Your task to perform on an android device: change alarm snooze length Image 0: 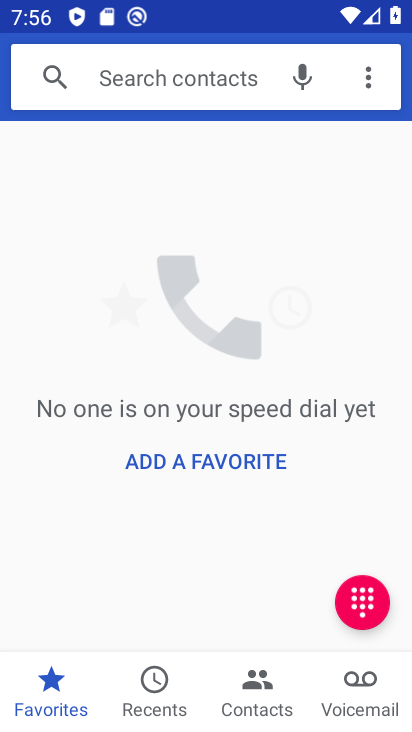
Step 0: press home button
Your task to perform on an android device: change alarm snooze length Image 1: 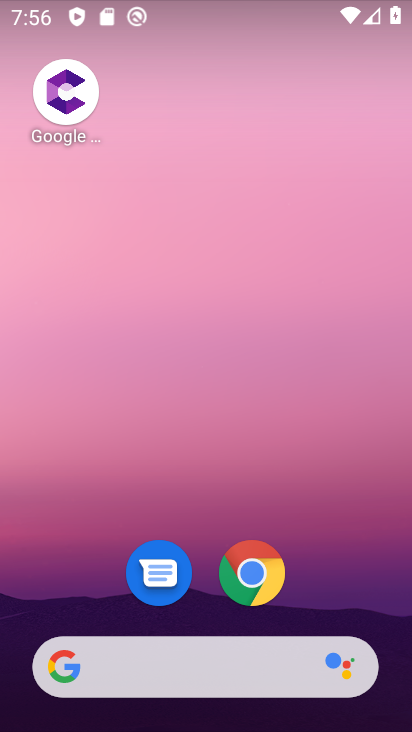
Step 1: drag from (68, 633) to (175, 3)
Your task to perform on an android device: change alarm snooze length Image 2: 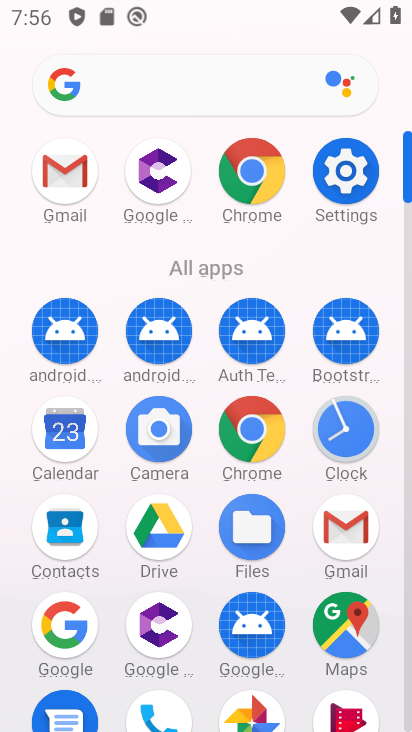
Step 2: click (357, 427)
Your task to perform on an android device: change alarm snooze length Image 3: 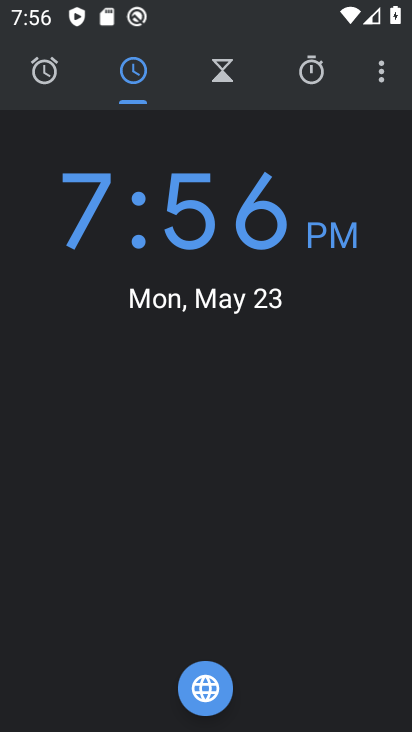
Step 3: click (386, 75)
Your task to perform on an android device: change alarm snooze length Image 4: 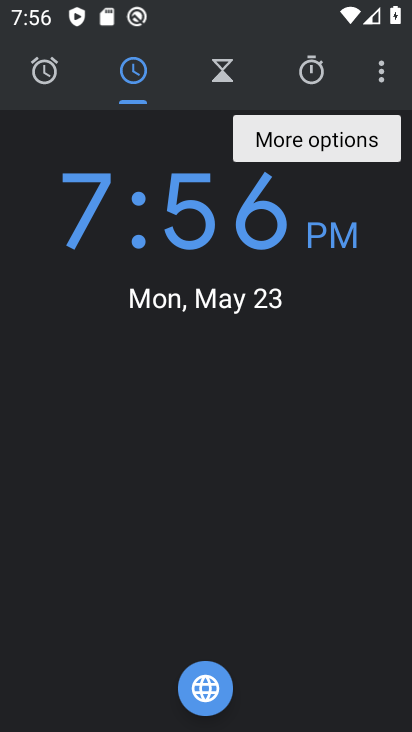
Step 4: click (378, 83)
Your task to perform on an android device: change alarm snooze length Image 5: 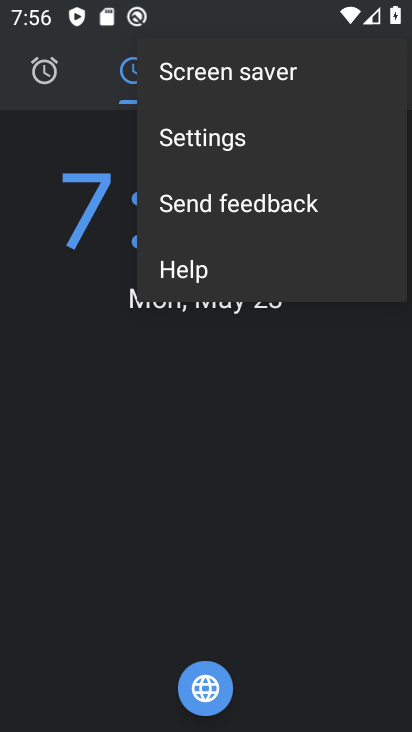
Step 5: click (334, 123)
Your task to perform on an android device: change alarm snooze length Image 6: 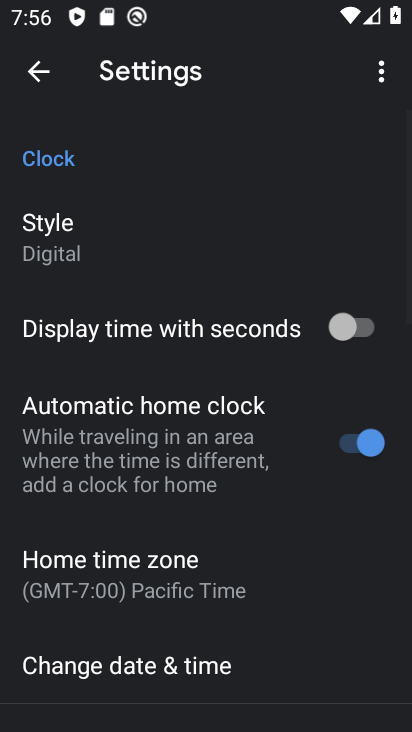
Step 6: drag from (139, 608) to (225, 119)
Your task to perform on an android device: change alarm snooze length Image 7: 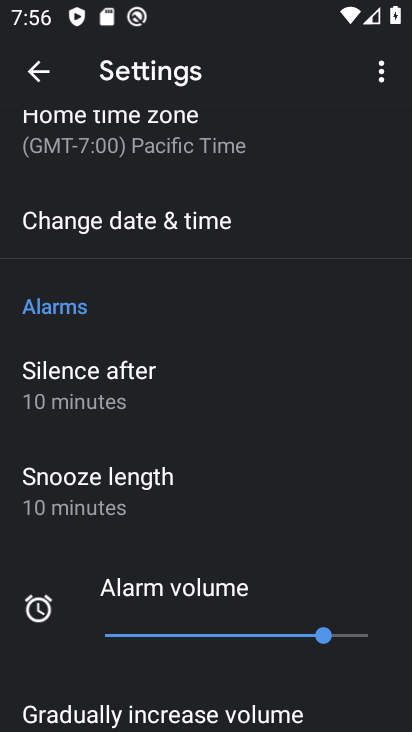
Step 7: click (152, 486)
Your task to perform on an android device: change alarm snooze length Image 8: 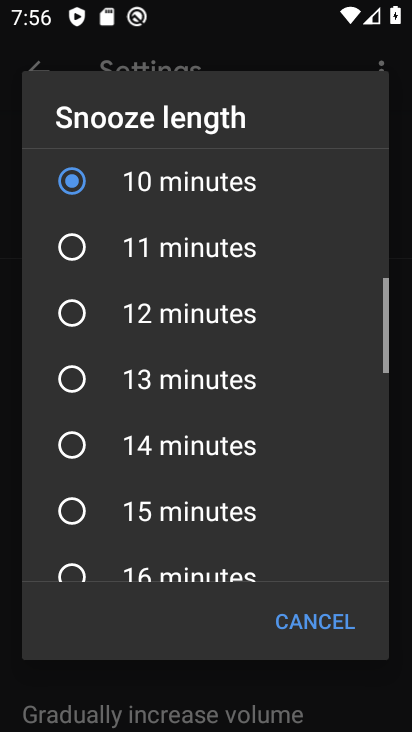
Step 8: click (167, 510)
Your task to perform on an android device: change alarm snooze length Image 9: 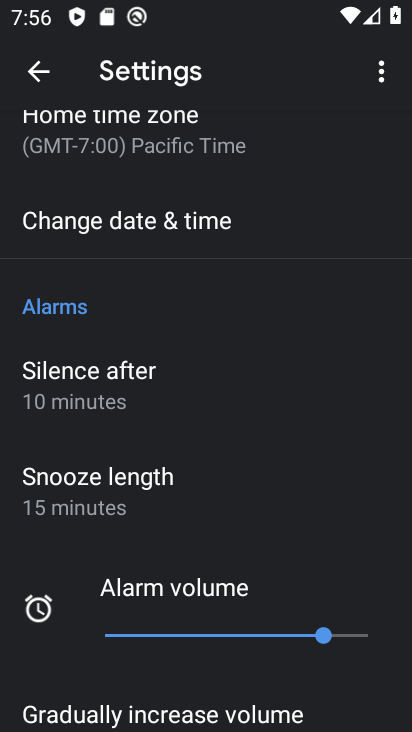
Step 9: task complete